Your task to perform on an android device: delete location history Image 0: 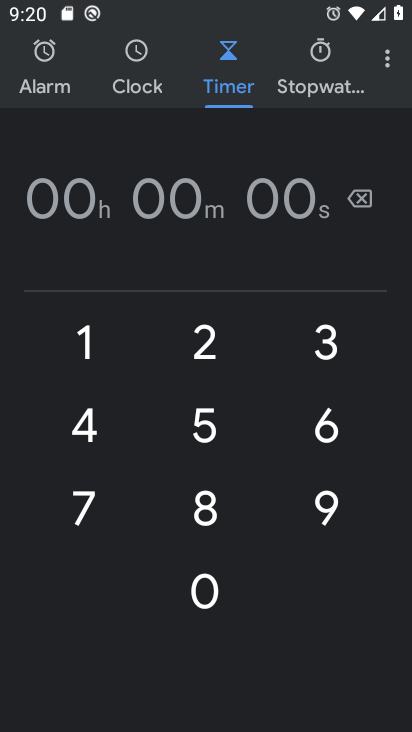
Step 0: press home button
Your task to perform on an android device: delete location history Image 1: 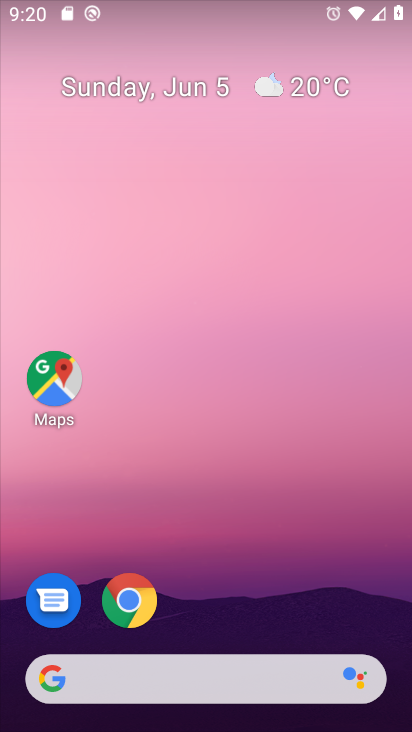
Step 1: click (63, 371)
Your task to perform on an android device: delete location history Image 2: 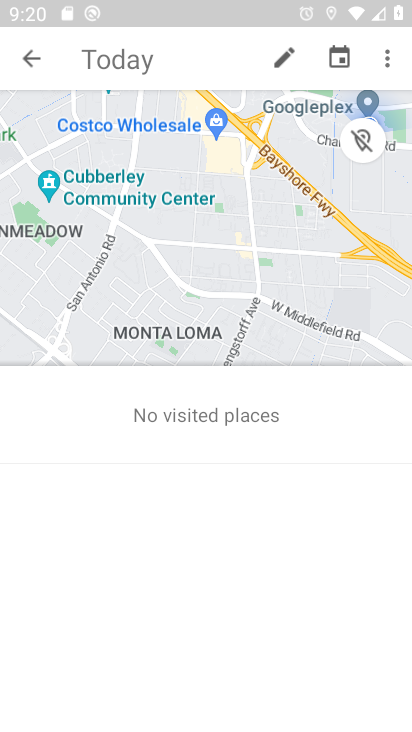
Step 2: click (384, 49)
Your task to perform on an android device: delete location history Image 3: 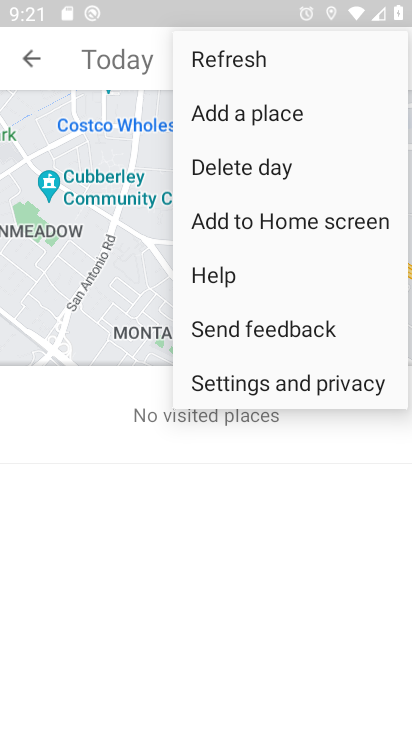
Step 3: click (318, 377)
Your task to perform on an android device: delete location history Image 4: 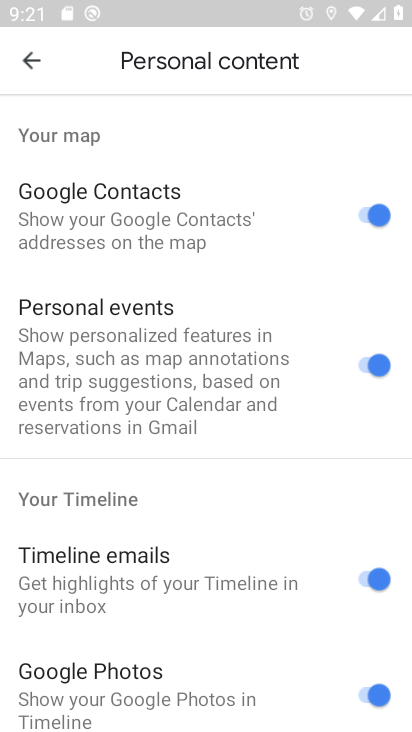
Step 4: drag from (223, 576) to (234, 109)
Your task to perform on an android device: delete location history Image 5: 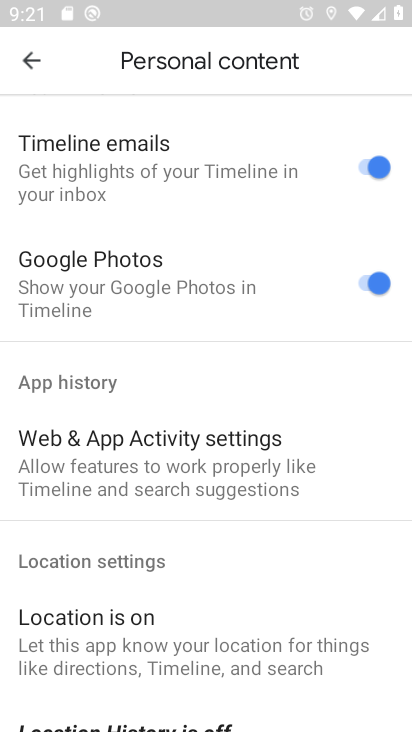
Step 5: drag from (245, 554) to (252, 124)
Your task to perform on an android device: delete location history Image 6: 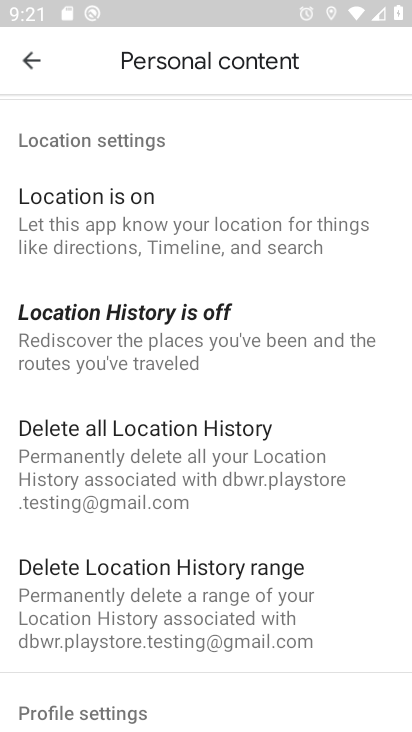
Step 6: click (193, 440)
Your task to perform on an android device: delete location history Image 7: 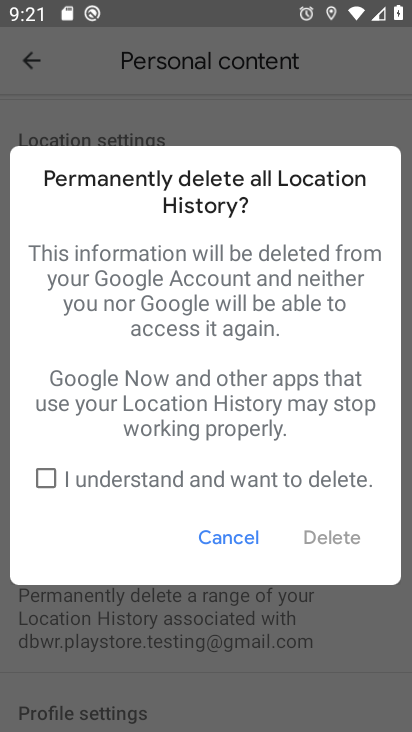
Step 7: click (46, 481)
Your task to perform on an android device: delete location history Image 8: 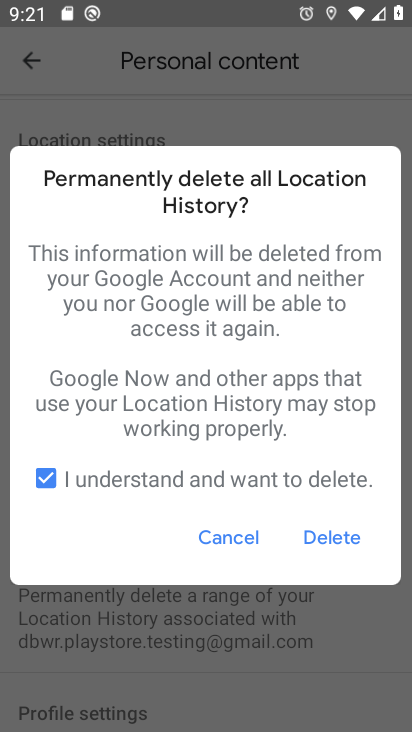
Step 8: click (339, 526)
Your task to perform on an android device: delete location history Image 9: 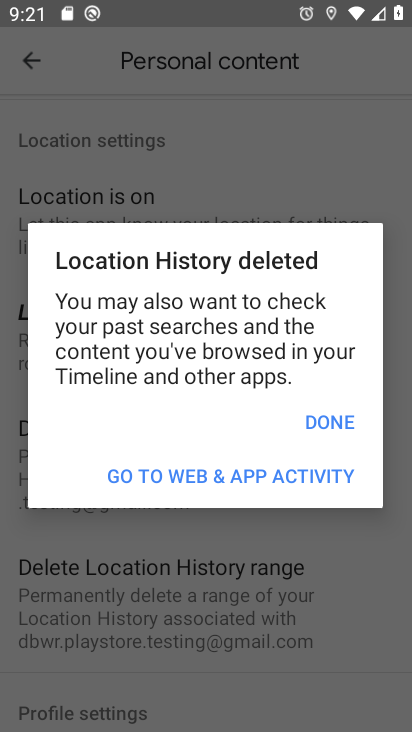
Step 9: click (320, 421)
Your task to perform on an android device: delete location history Image 10: 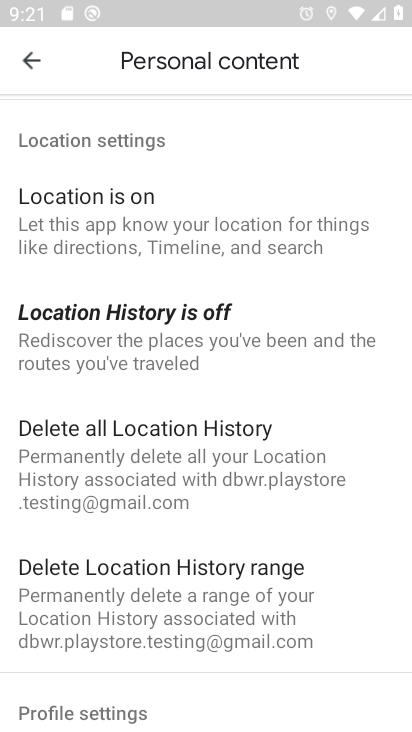
Step 10: task complete